Your task to perform on an android device: turn off translation in the chrome app Image 0: 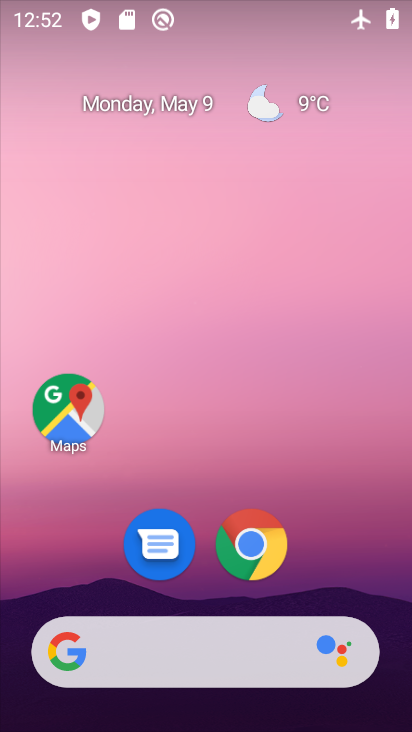
Step 0: click (321, 468)
Your task to perform on an android device: turn off translation in the chrome app Image 1: 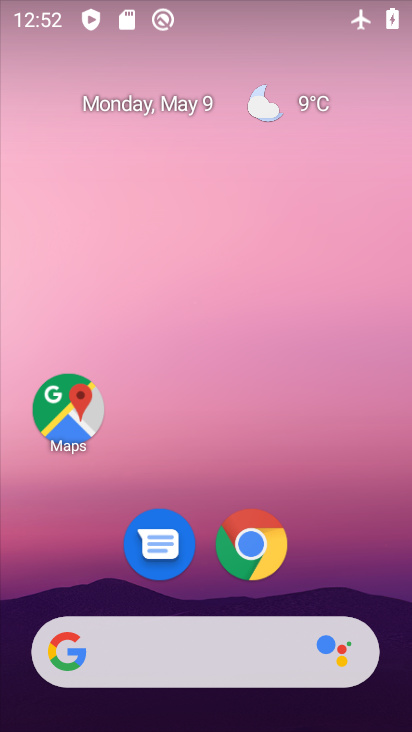
Step 1: click (277, 540)
Your task to perform on an android device: turn off translation in the chrome app Image 2: 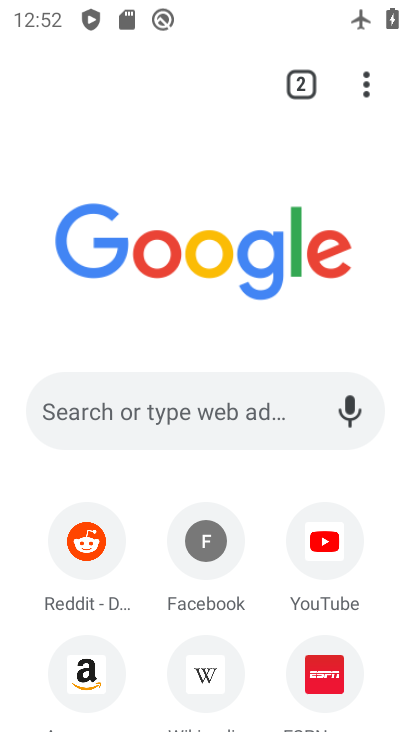
Step 2: click (366, 99)
Your task to perform on an android device: turn off translation in the chrome app Image 3: 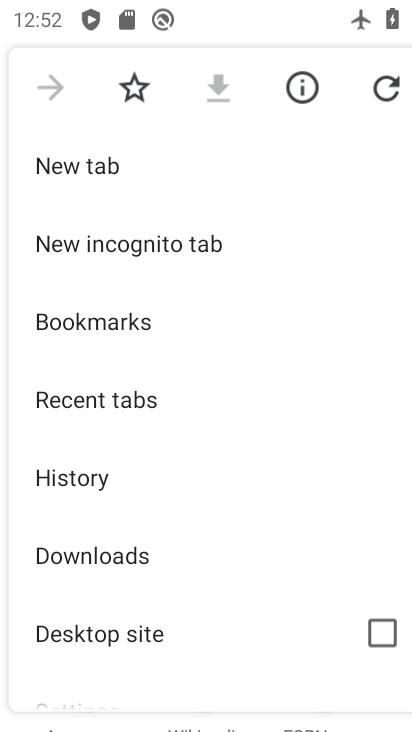
Step 3: drag from (114, 592) to (132, 273)
Your task to perform on an android device: turn off translation in the chrome app Image 4: 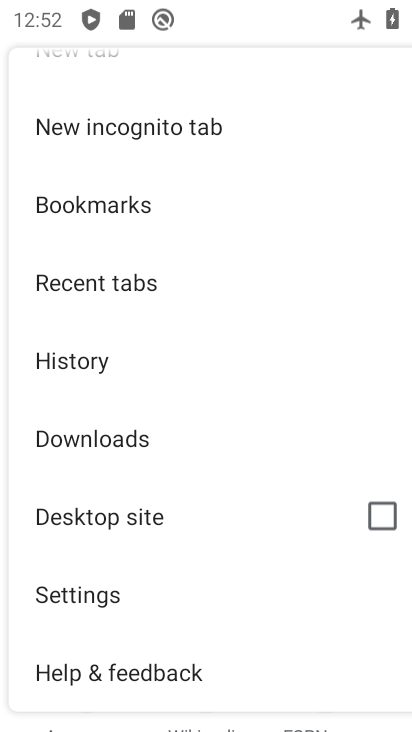
Step 4: click (131, 586)
Your task to perform on an android device: turn off translation in the chrome app Image 5: 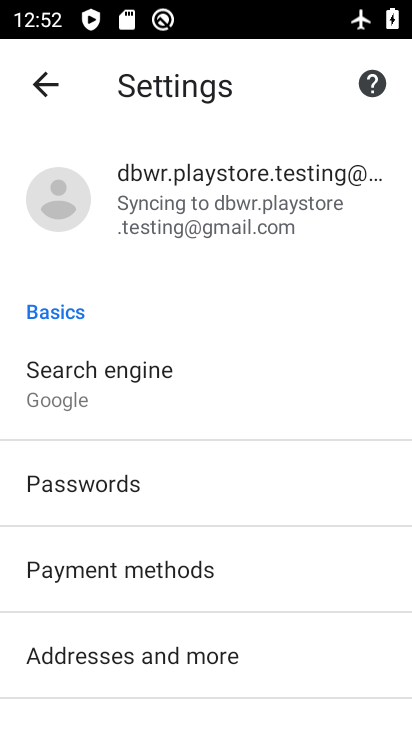
Step 5: drag from (137, 690) to (104, 172)
Your task to perform on an android device: turn off translation in the chrome app Image 6: 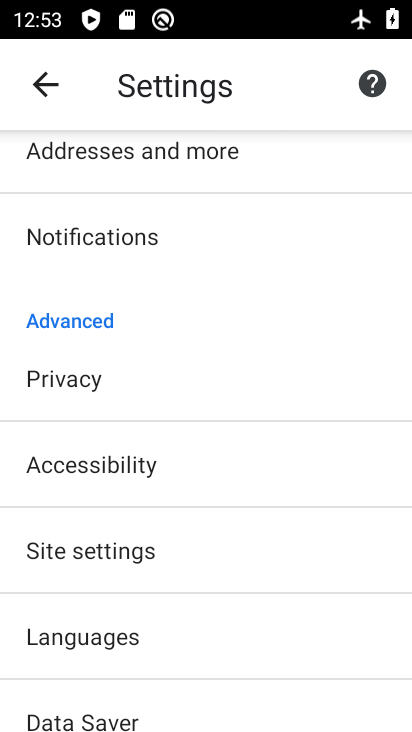
Step 6: drag from (153, 586) to (146, 395)
Your task to perform on an android device: turn off translation in the chrome app Image 7: 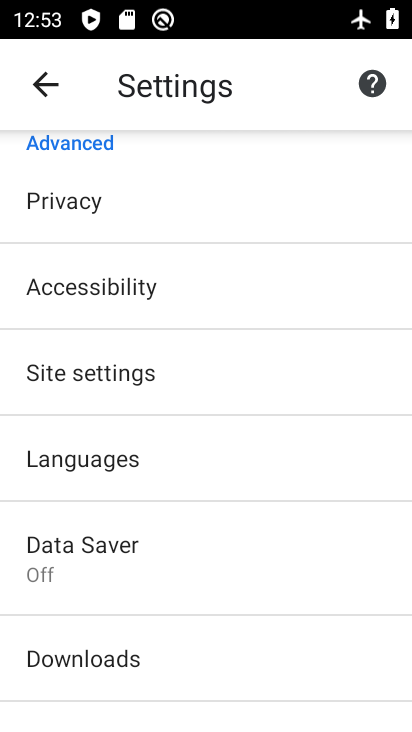
Step 7: click (137, 471)
Your task to perform on an android device: turn off translation in the chrome app Image 8: 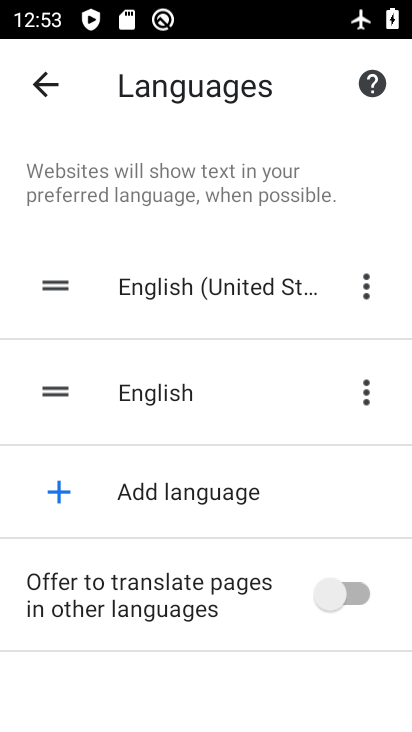
Step 8: task complete